Your task to perform on an android device: Open the web browser Image 0: 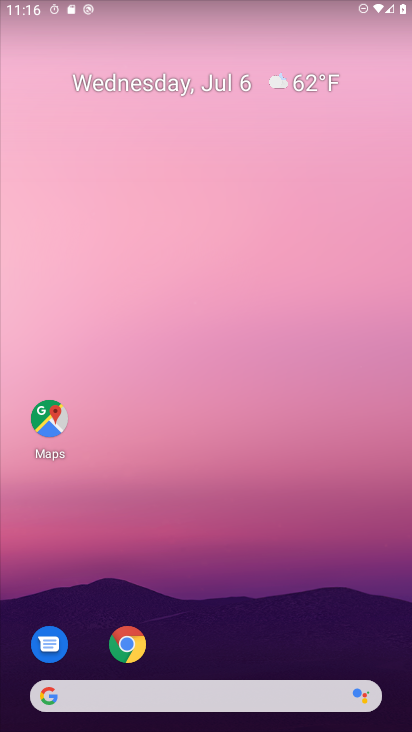
Step 0: press home button
Your task to perform on an android device: Open the web browser Image 1: 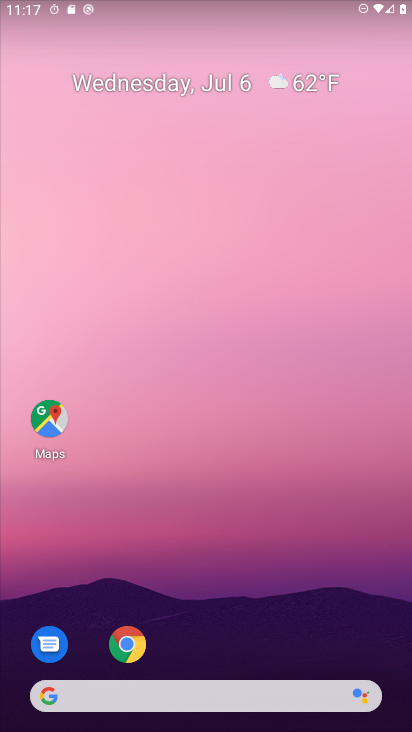
Step 1: click (50, 692)
Your task to perform on an android device: Open the web browser Image 2: 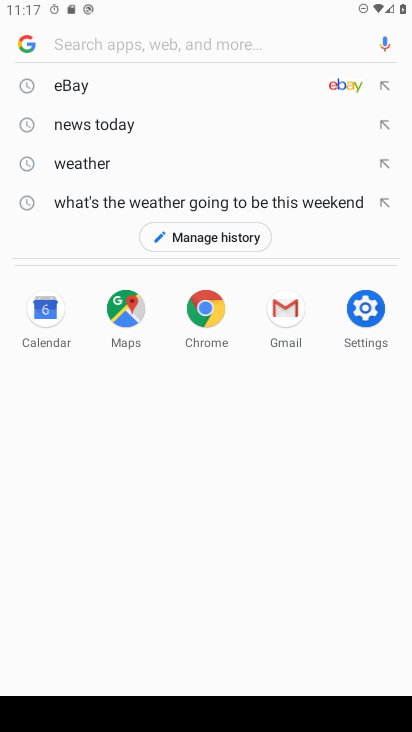
Step 2: task complete